Your task to perform on an android device: see creations saved in the google photos Image 0: 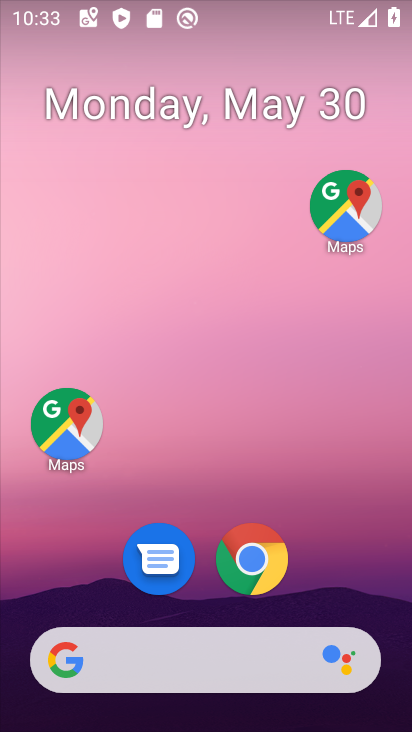
Step 0: drag from (308, 531) to (231, 62)
Your task to perform on an android device: see creations saved in the google photos Image 1: 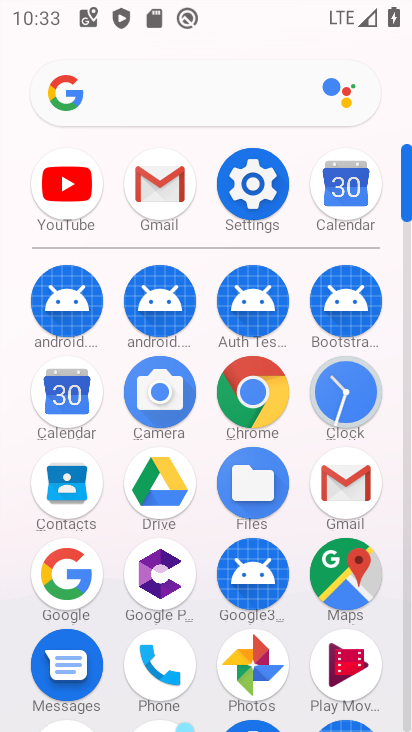
Step 1: click (251, 671)
Your task to perform on an android device: see creations saved in the google photos Image 2: 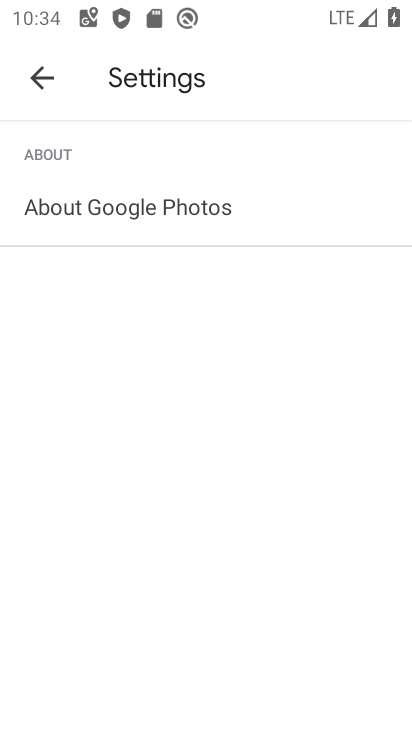
Step 2: click (54, 75)
Your task to perform on an android device: see creations saved in the google photos Image 3: 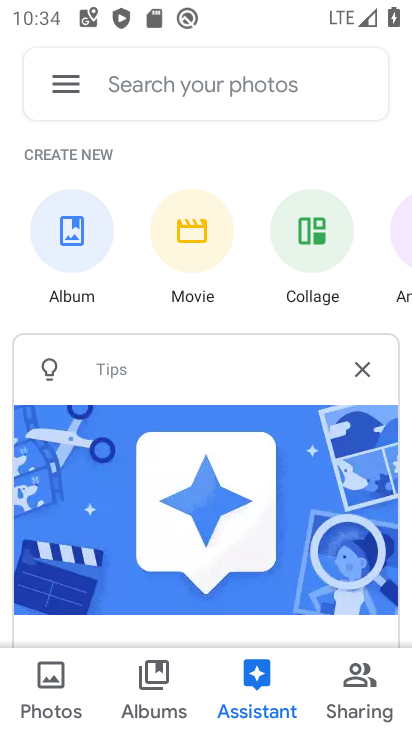
Step 3: click (51, 680)
Your task to perform on an android device: see creations saved in the google photos Image 4: 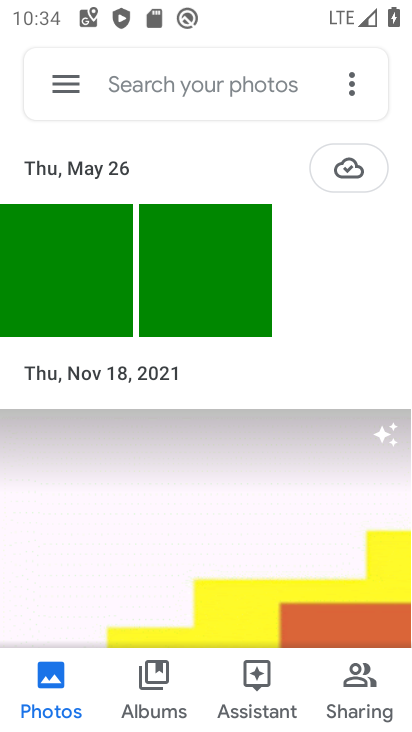
Step 4: click (238, 699)
Your task to perform on an android device: see creations saved in the google photos Image 5: 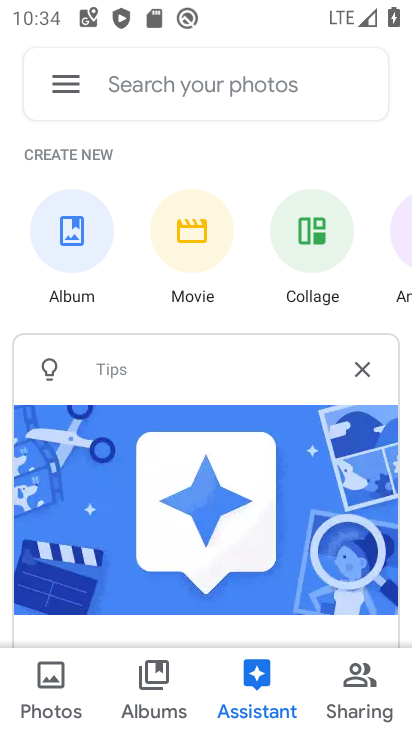
Step 5: task complete